Your task to perform on an android device: Open notification settings Image 0: 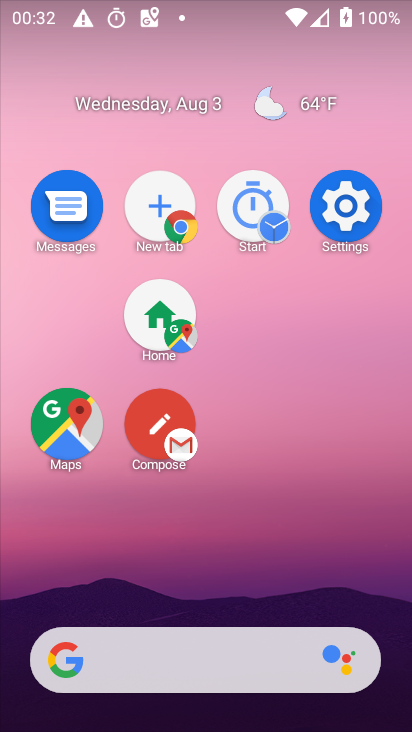
Step 0: click (110, 224)
Your task to perform on an android device: Open notification settings Image 1: 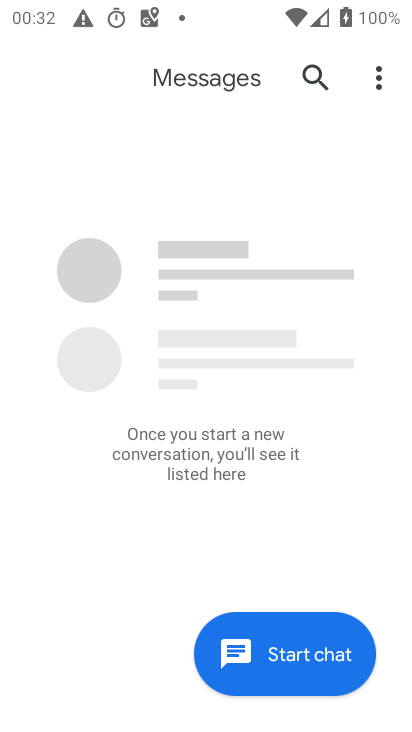
Step 1: press back button
Your task to perform on an android device: Open notification settings Image 2: 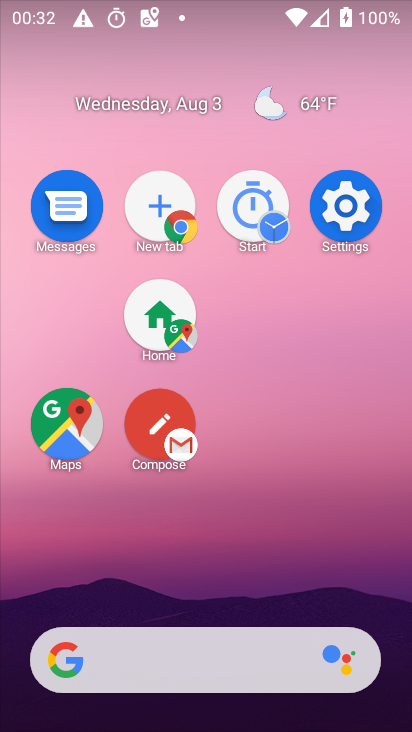
Step 2: click (334, 208)
Your task to perform on an android device: Open notification settings Image 3: 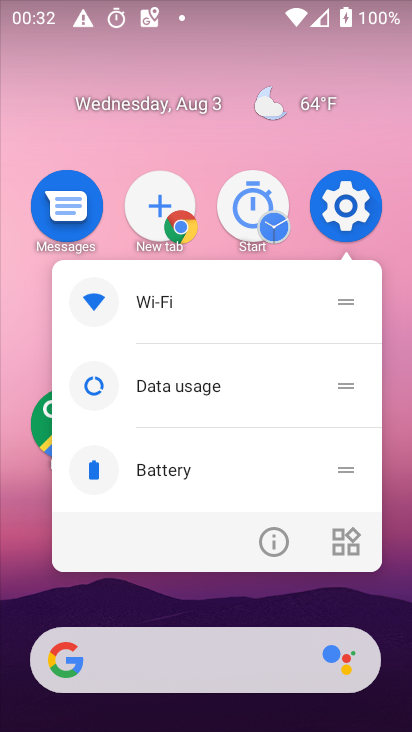
Step 3: click (337, 210)
Your task to perform on an android device: Open notification settings Image 4: 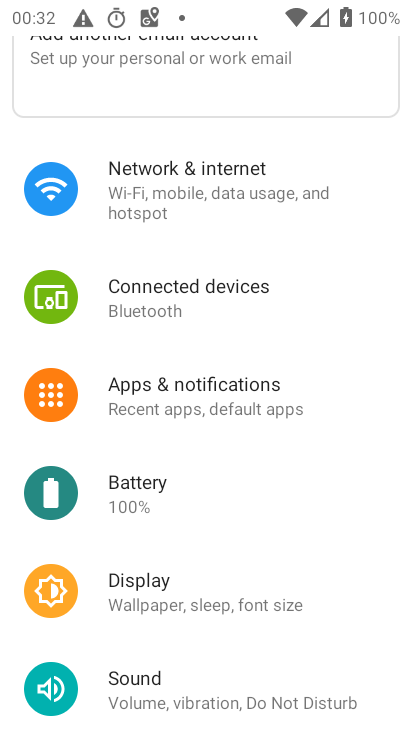
Step 4: click (157, 395)
Your task to perform on an android device: Open notification settings Image 5: 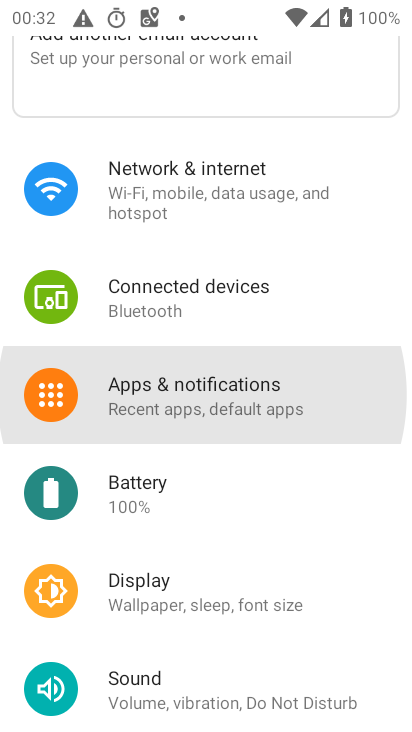
Step 5: click (158, 385)
Your task to perform on an android device: Open notification settings Image 6: 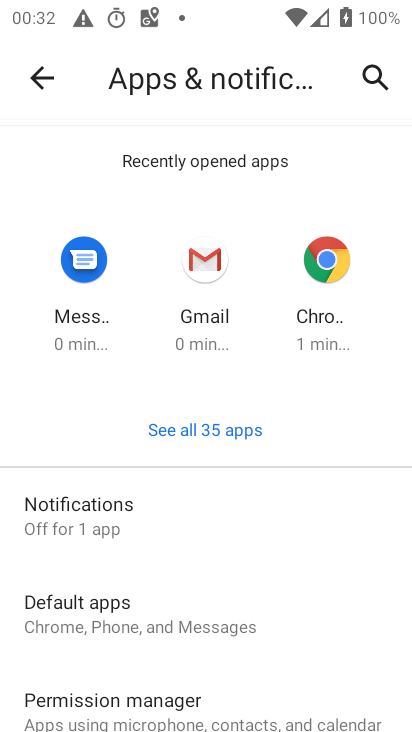
Step 6: click (71, 524)
Your task to perform on an android device: Open notification settings Image 7: 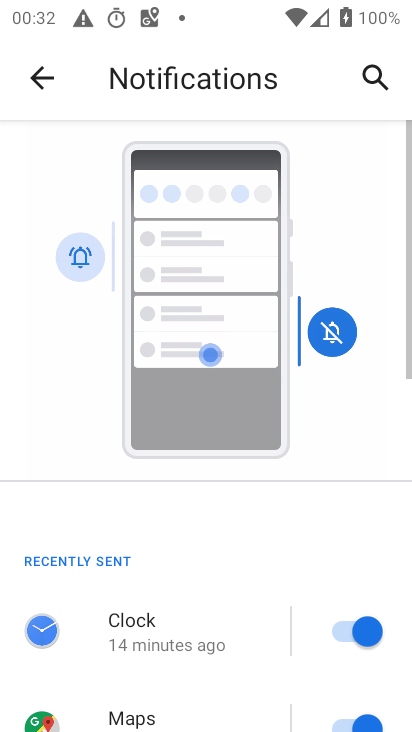
Step 7: task complete